Your task to perform on an android device: What's the weather going to be tomorrow? Image 0: 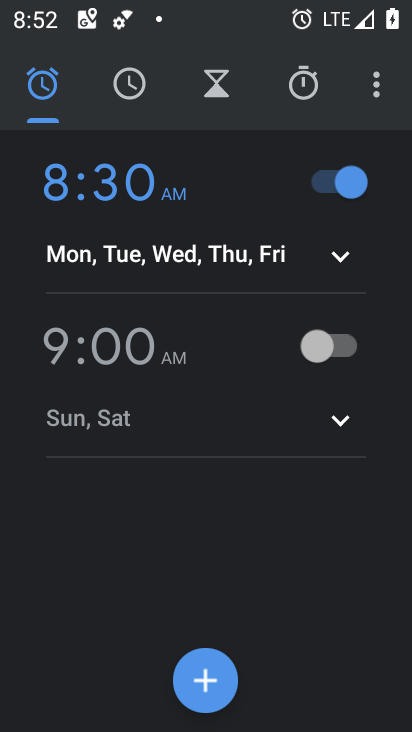
Step 0: press home button
Your task to perform on an android device: What's the weather going to be tomorrow? Image 1: 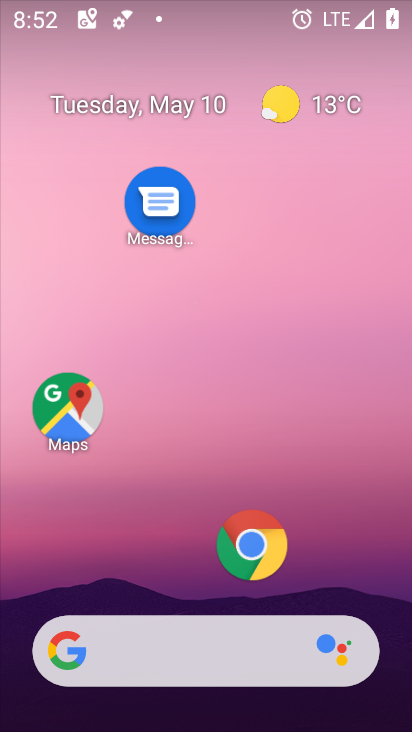
Step 1: click (336, 103)
Your task to perform on an android device: What's the weather going to be tomorrow? Image 2: 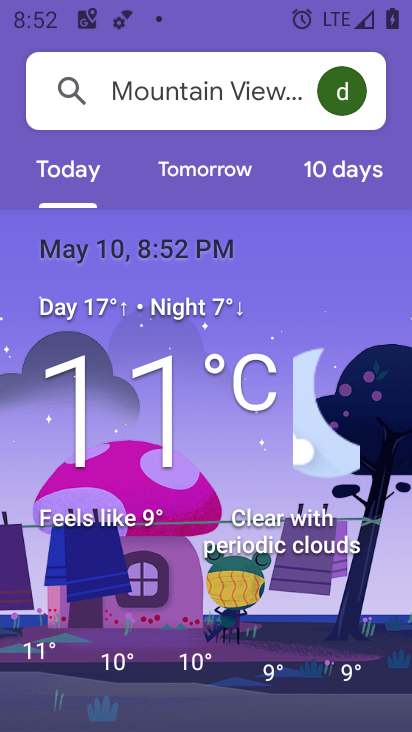
Step 2: click (205, 173)
Your task to perform on an android device: What's the weather going to be tomorrow? Image 3: 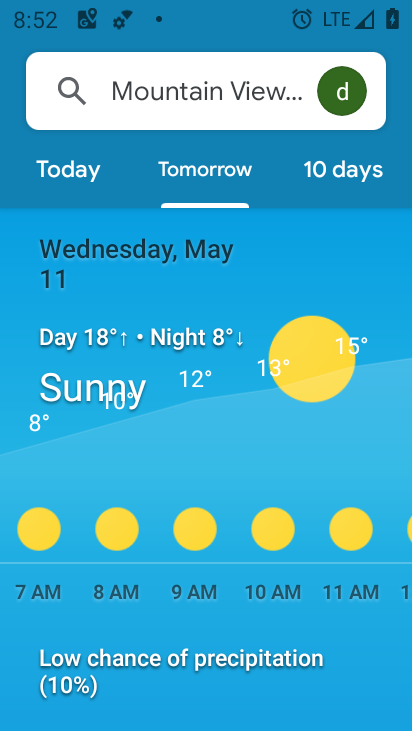
Step 3: drag from (346, 545) to (0, 556)
Your task to perform on an android device: What's the weather going to be tomorrow? Image 4: 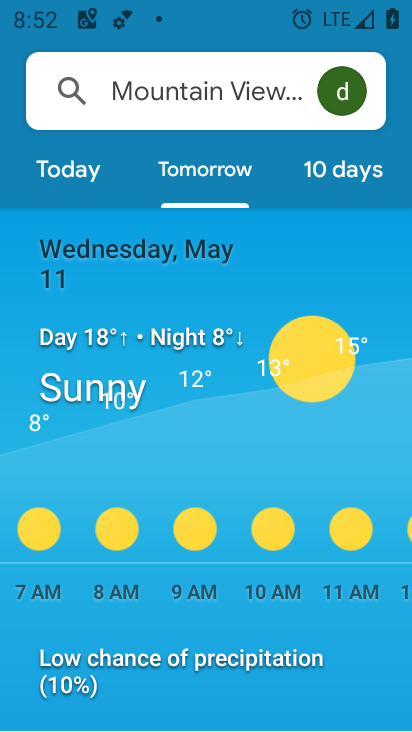
Step 4: drag from (368, 585) to (67, 591)
Your task to perform on an android device: What's the weather going to be tomorrow? Image 5: 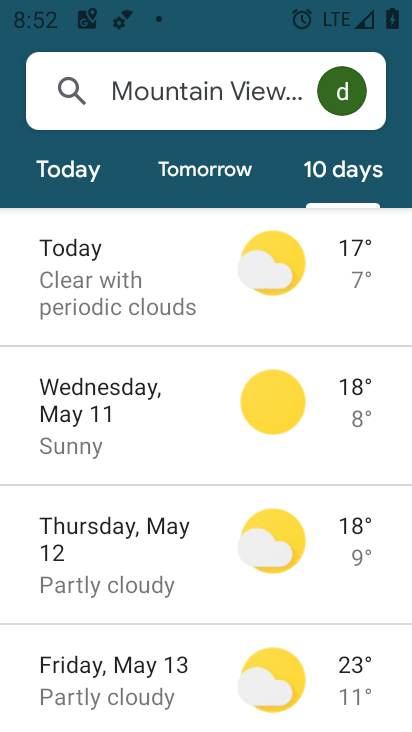
Step 5: click (197, 177)
Your task to perform on an android device: What's the weather going to be tomorrow? Image 6: 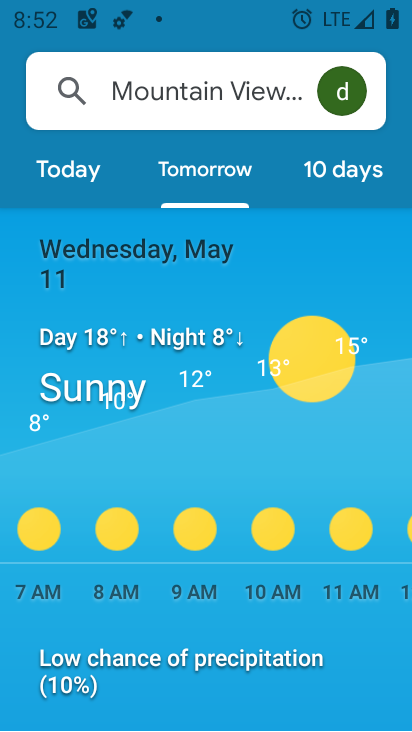
Step 6: task complete